Your task to perform on an android device: See recent photos Image 0: 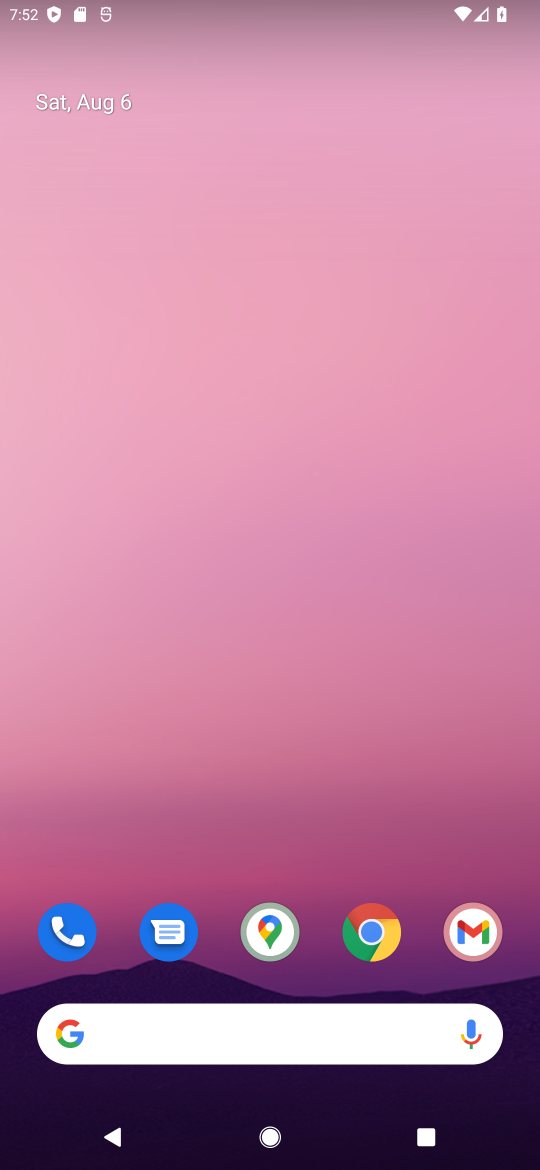
Step 0: drag from (266, 966) to (409, 216)
Your task to perform on an android device: See recent photos Image 1: 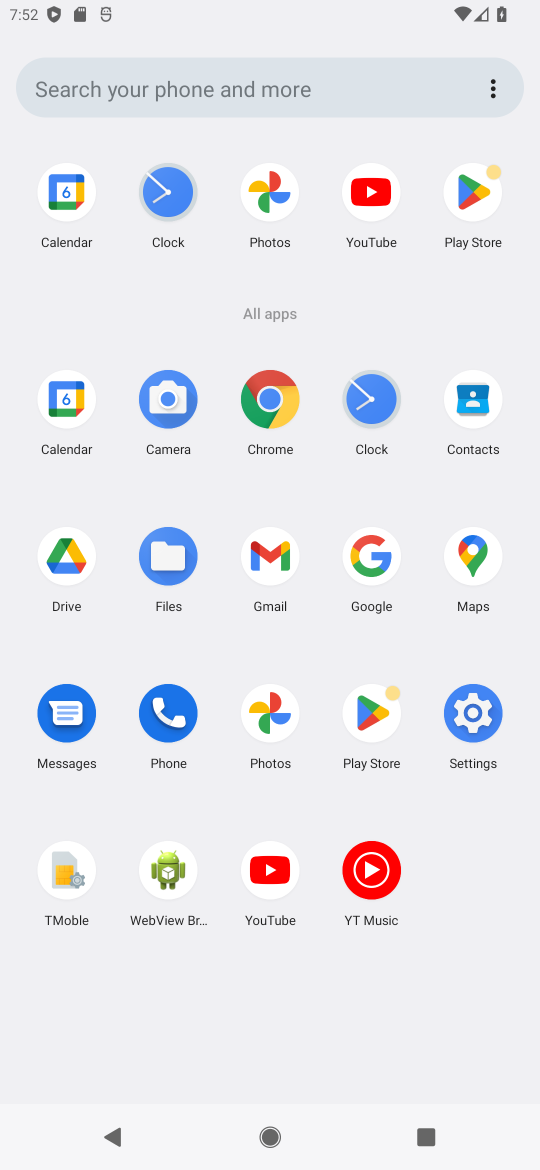
Step 1: click (278, 695)
Your task to perform on an android device: See recent photos Image 2: 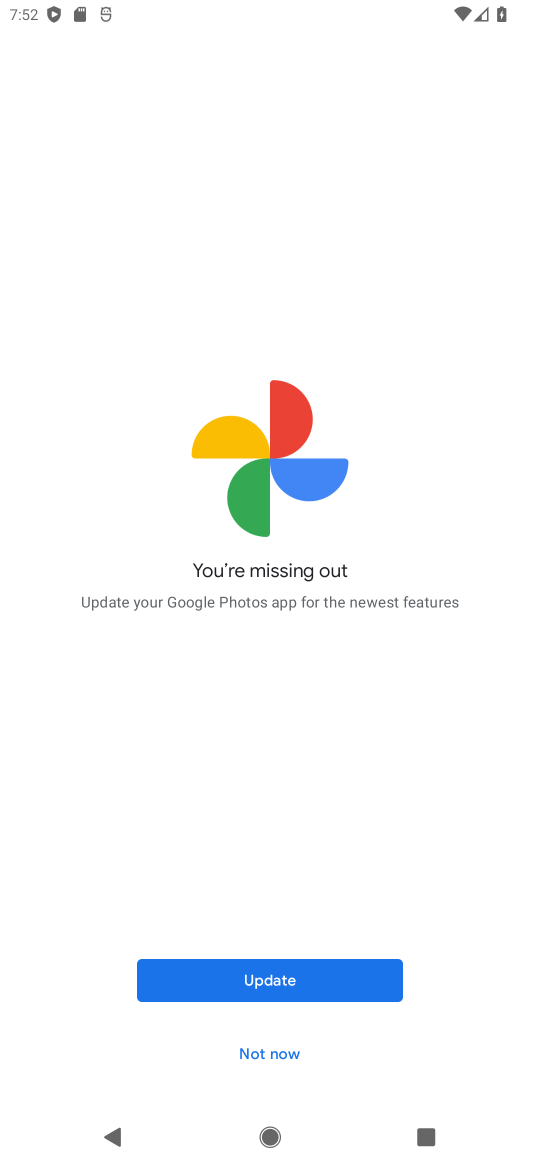
Step 2: click (289, 973)
Your task to perform on an android device: See recent photos Image 3: 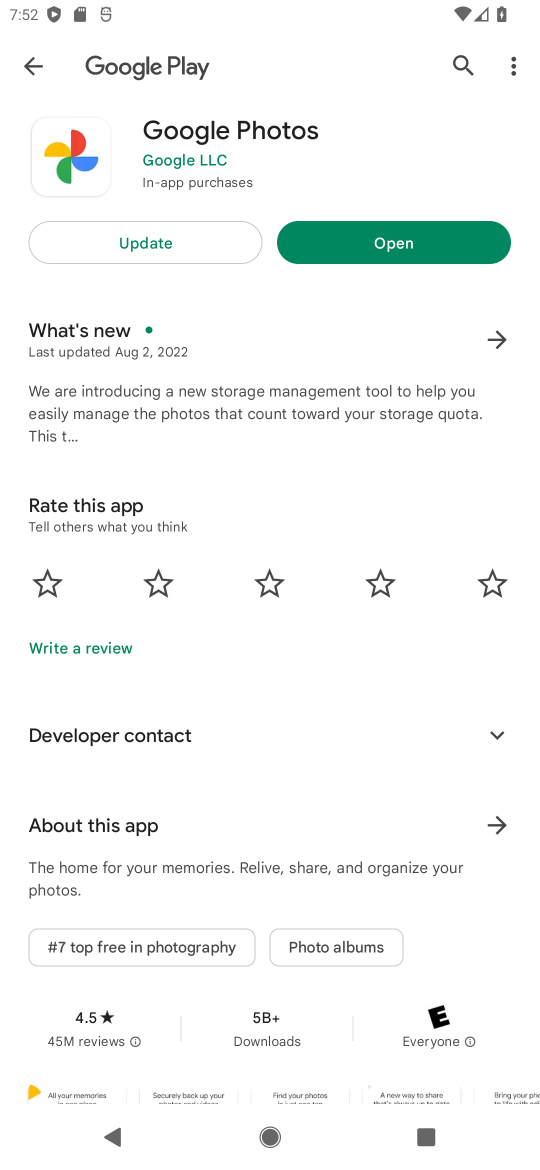
Step 3: click (135, 240)
Your task to perform on an android device: See recent photos Image 4: 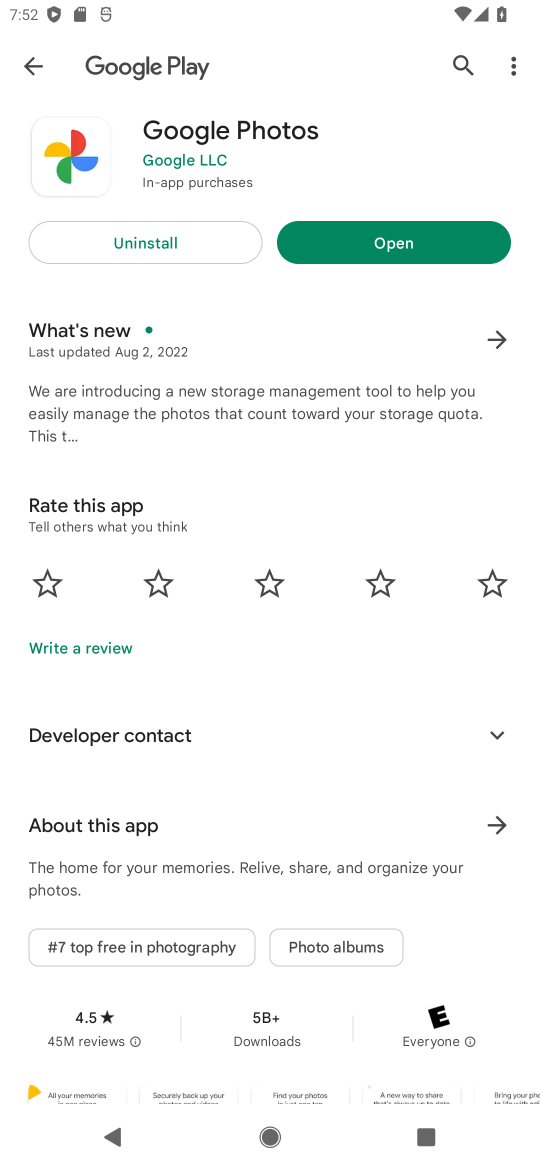
Step 4: click (372, 235)
Your task to perform on an android device: See recent photos Image 5: 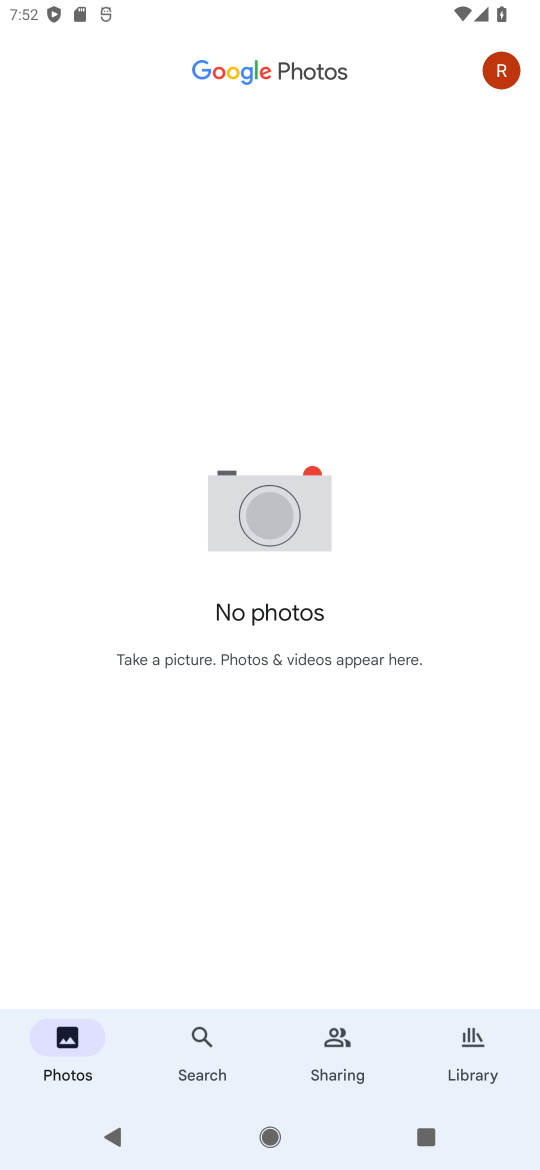
Step 5: click (204, 1066)
Your task to perform on an android device: See recent photos Image 6: 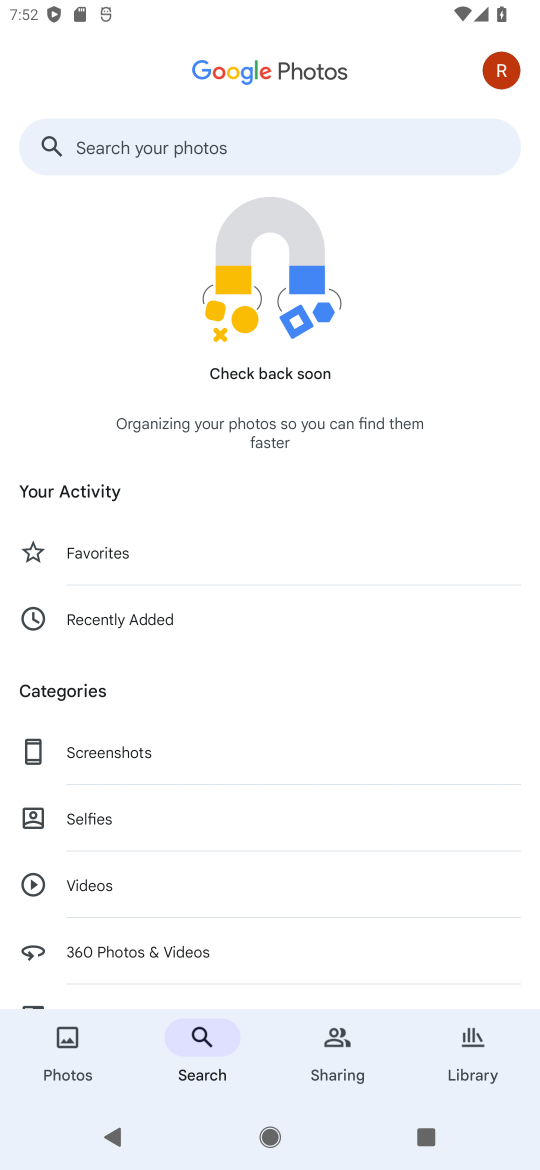
Step 6: click (146, 617)
Your task to perform on an android device: See recent photos Image 7: 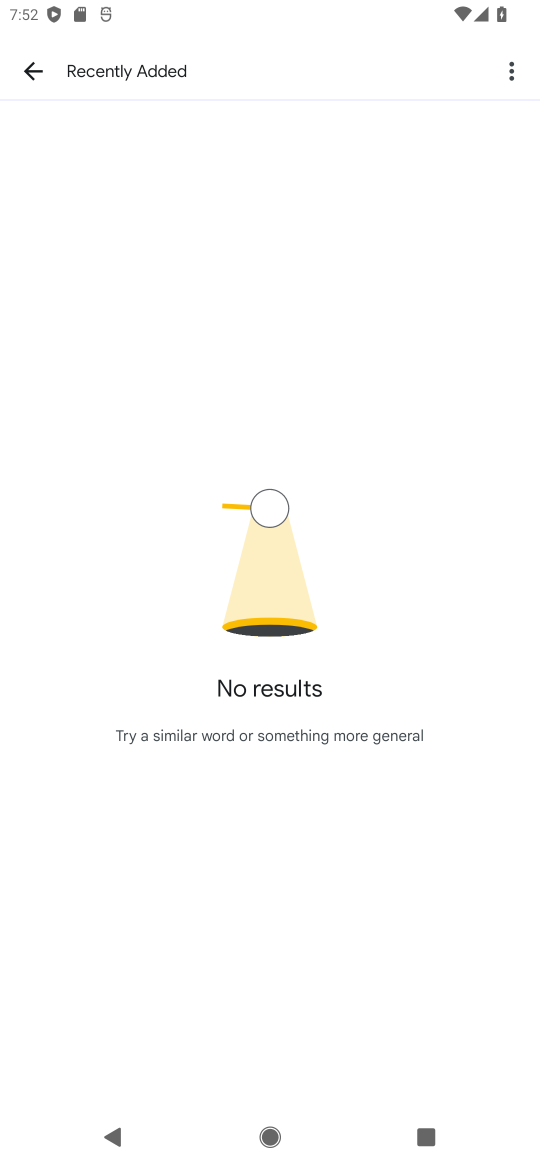
Step 7: task complete